Your task to perform on an android device: open app "Google News" (install if not already installed) Image 0: 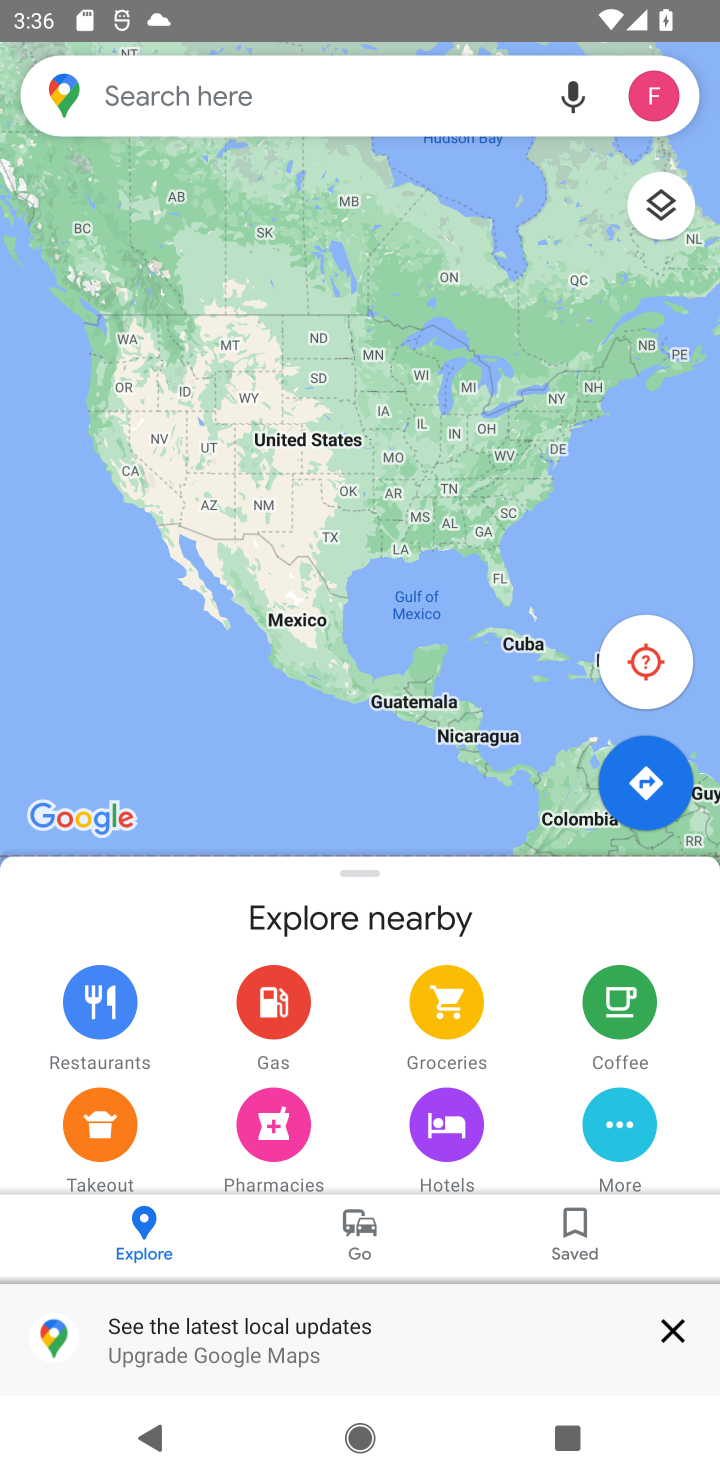
Step 0: press home button
Your task to perform on an android device: open app "Google News" (install if not already installed) Image 1: 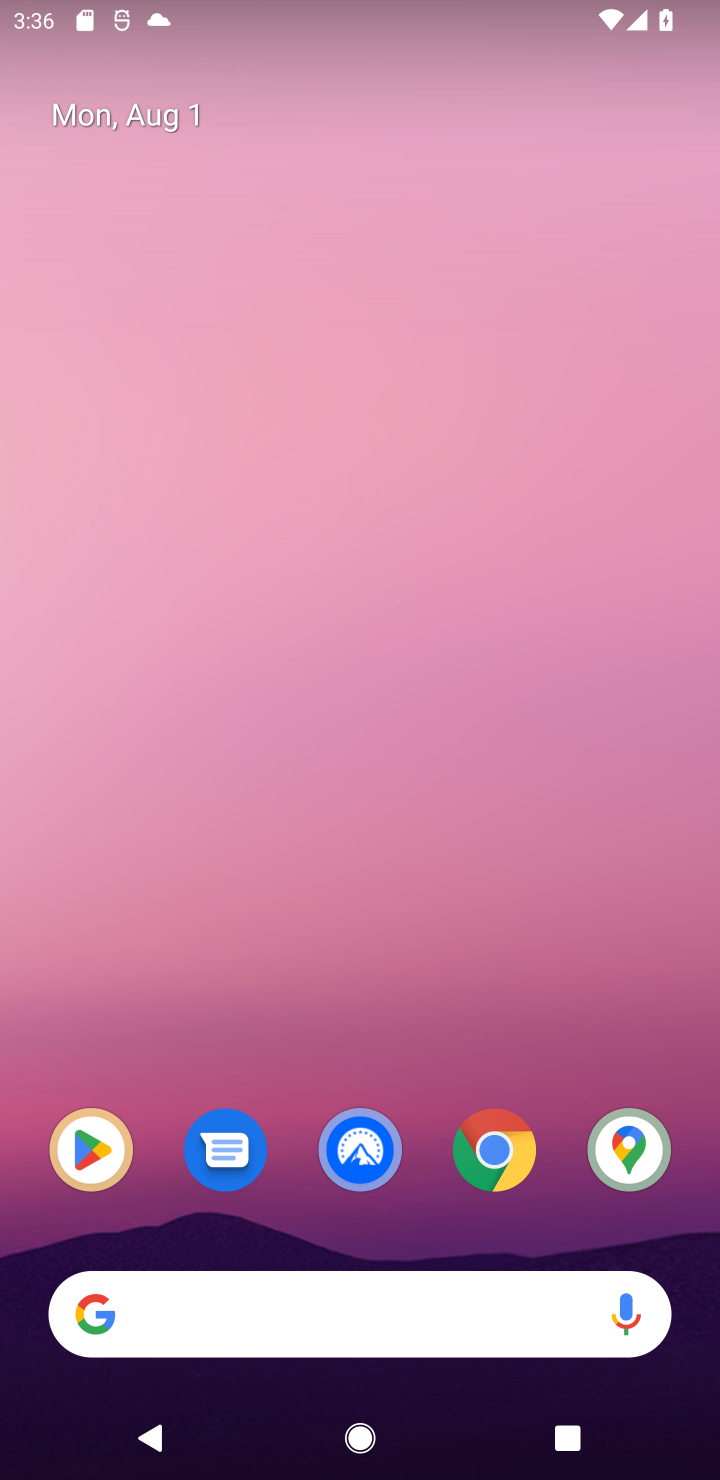
Step 1: click (94, 1181)
Your task to perform on an android device: open app "Google News" (install if not already installed) Image 2: 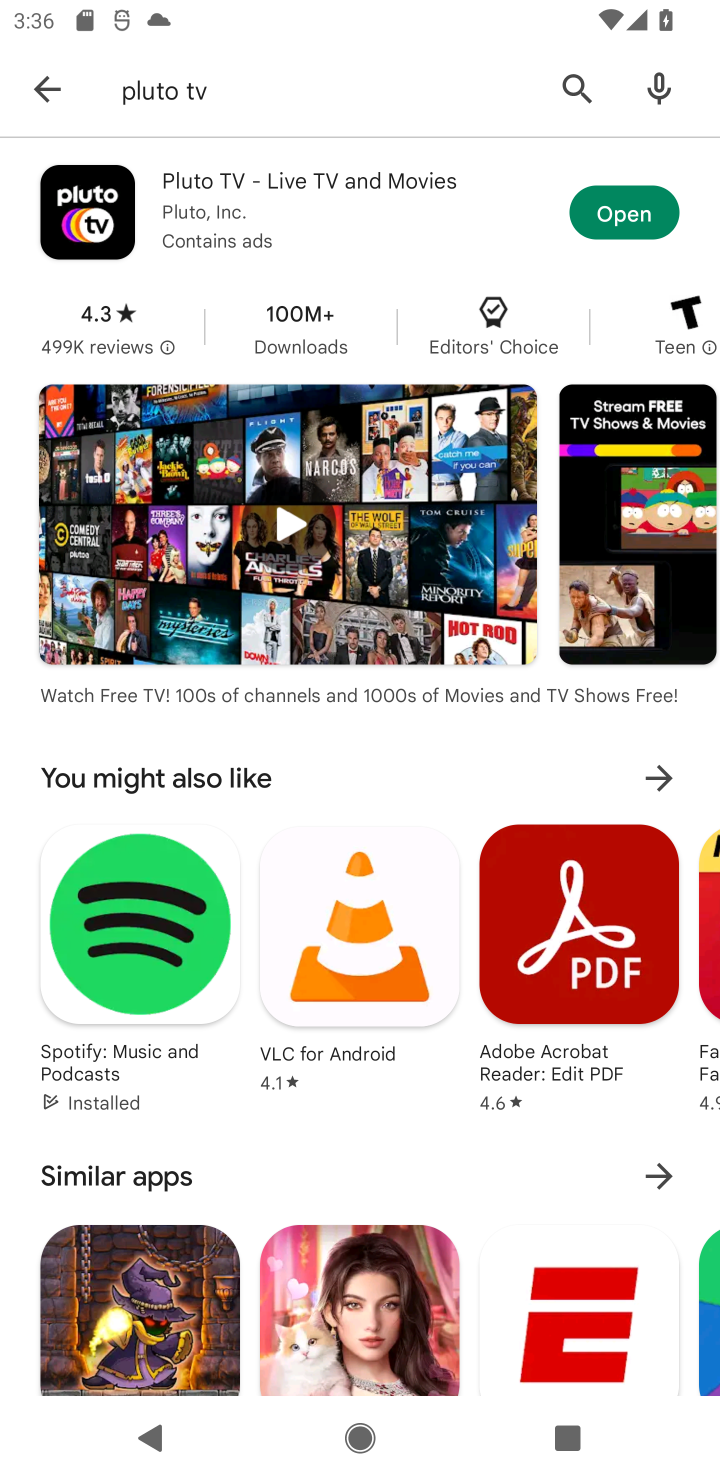
Step 2: click (582, 86)
Your task to perform on an android device: open app "Google News" (install if not already installed) Image 3: 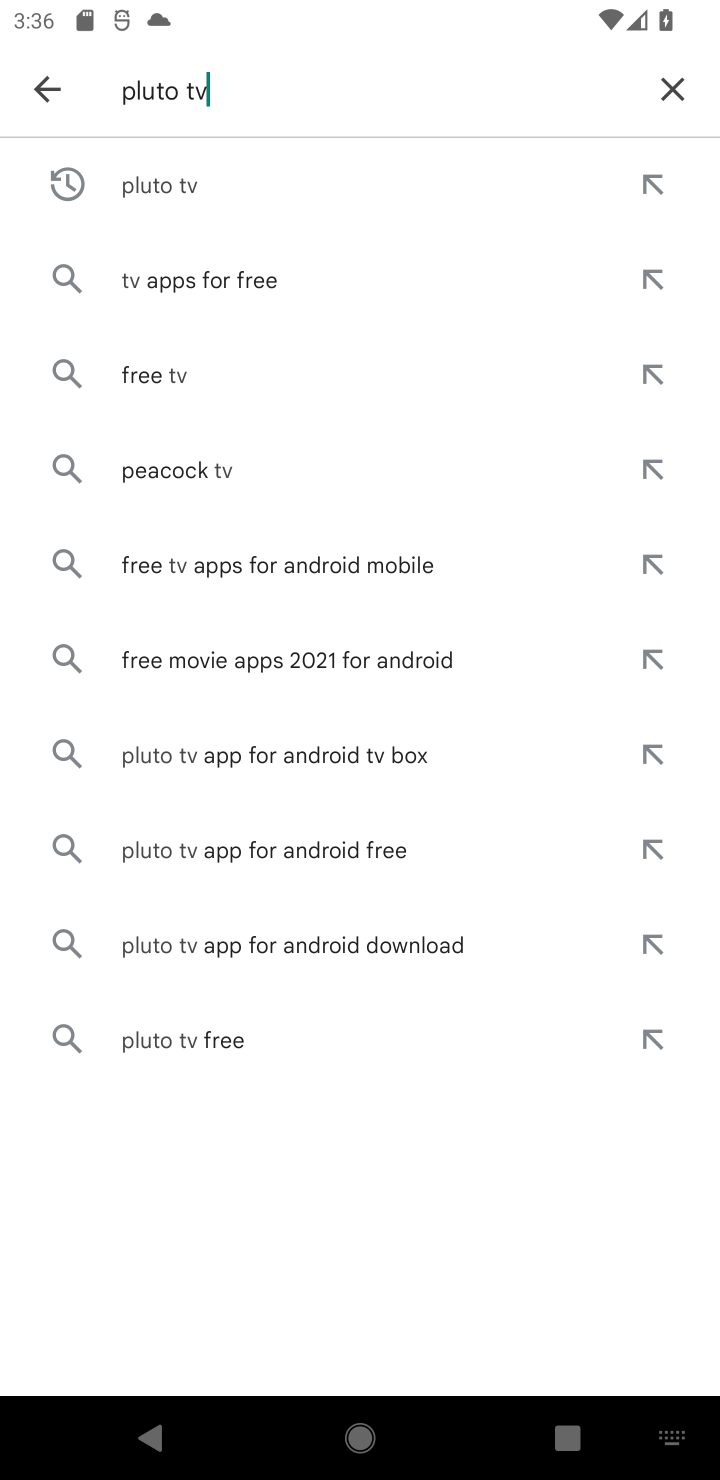
Step 3: click (659, 86)
Your task to perform on an android device: open app "Google News" (install if not already installed) Image 4: 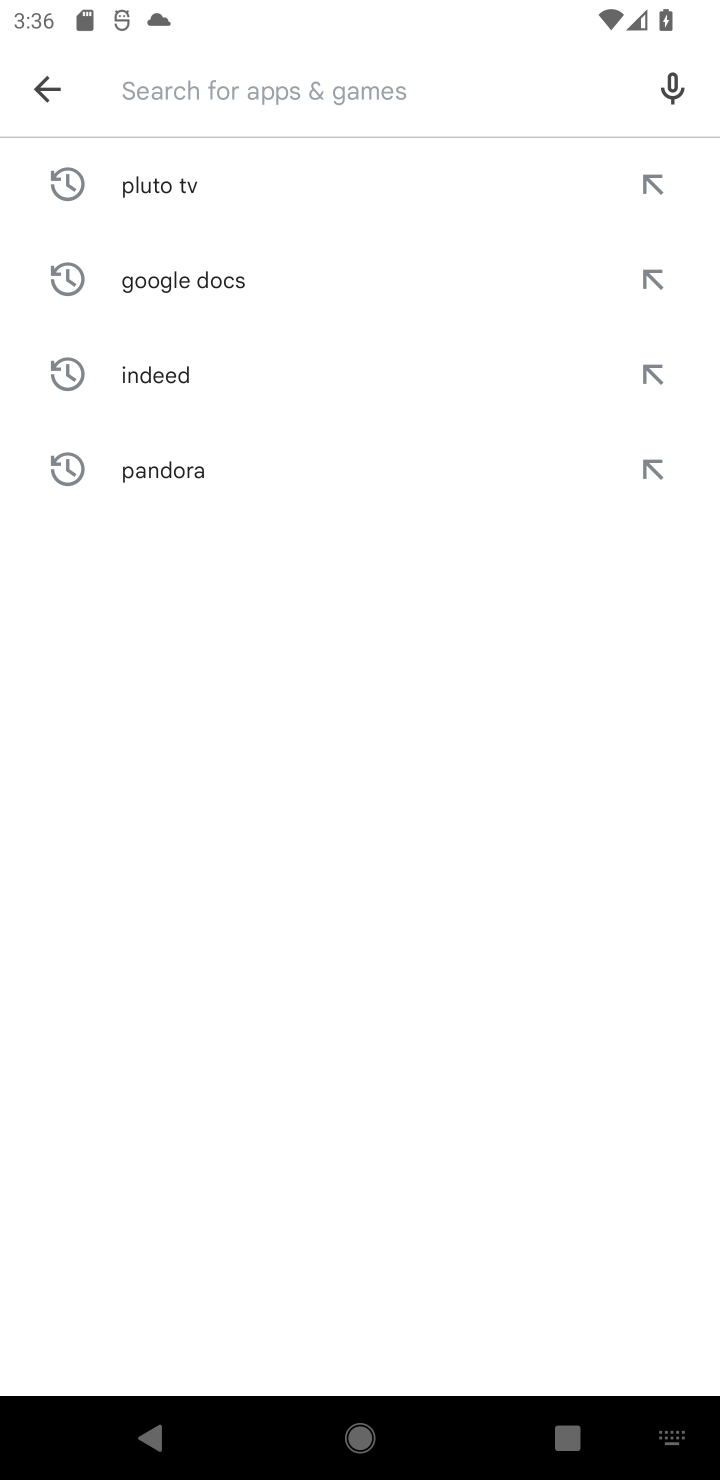
Step 4: type "google news"
Your task to perform on an android device: open app "Google News" (install if not already installed) Image 5: 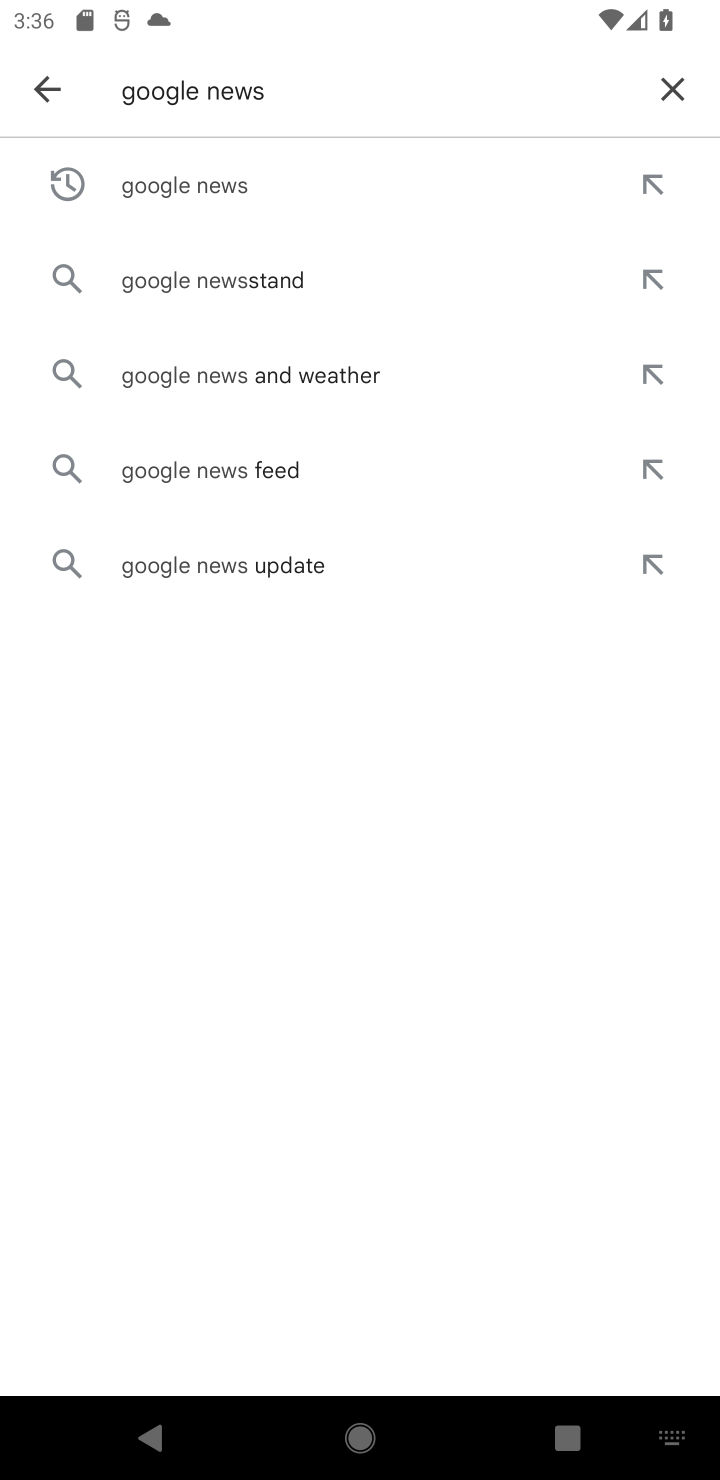
Step 5: click (335, 186)
Your task to perform on an android device: open app "Google News" (install if not already installed) Image 6: 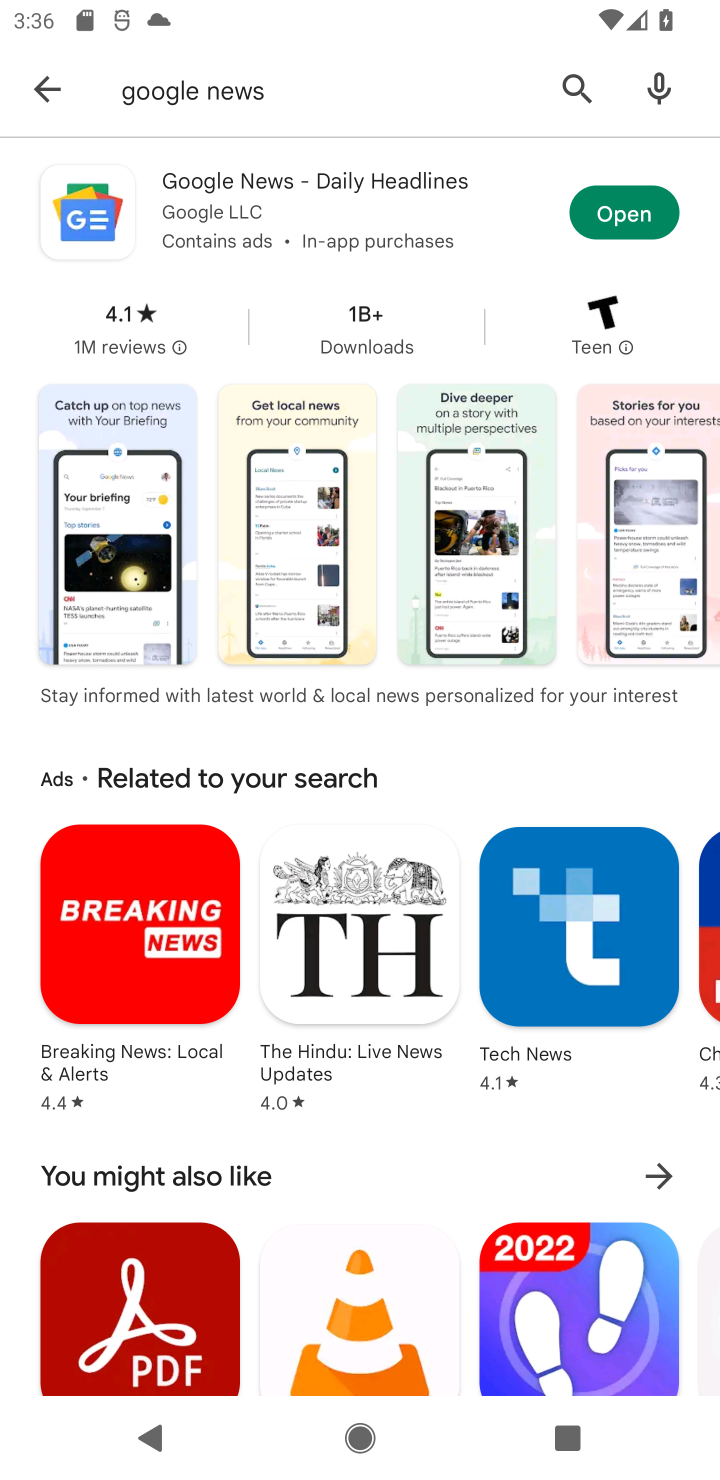
Step 6: click (614, 221)
Your task to perform on an android device: open app "Google News" (install if not already installed) Image 7: 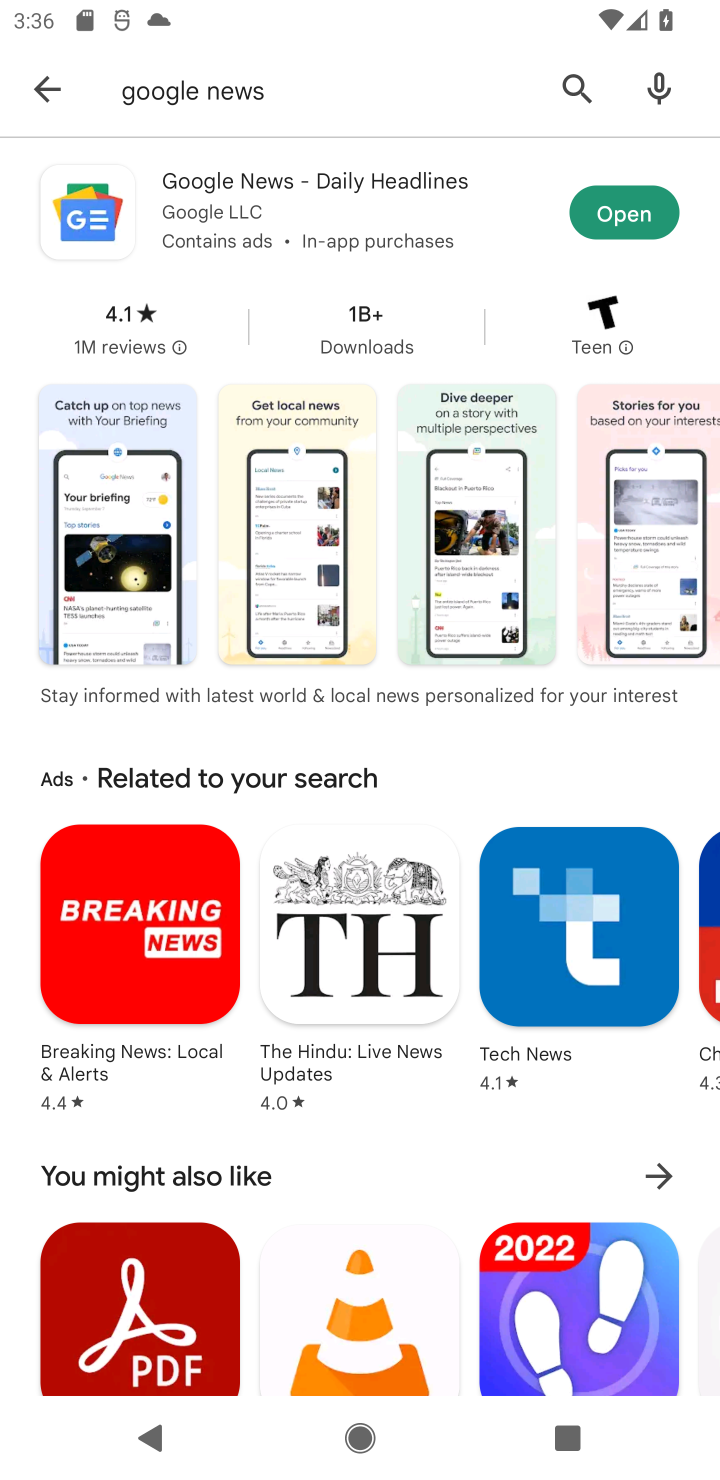
Step 7: task complete